Your task to perform on an android device: Open maps Image 0: 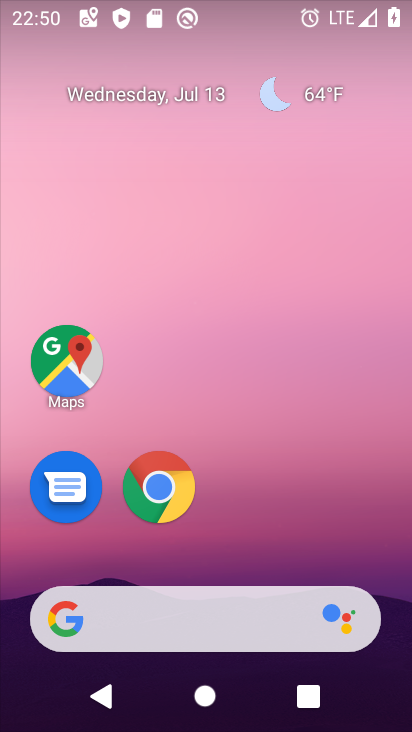
Step 0: click (68, 354)
Your task to perform on an android device: Open maps Image 1: 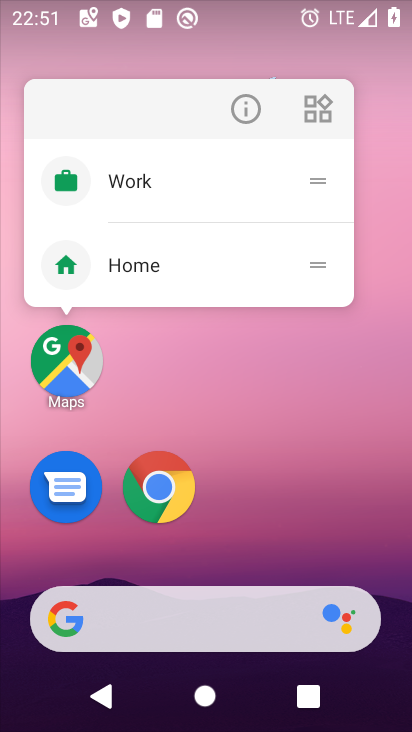
Step 1: click (81, 352)
Your task to perform on an android device: Open maps Image 2: 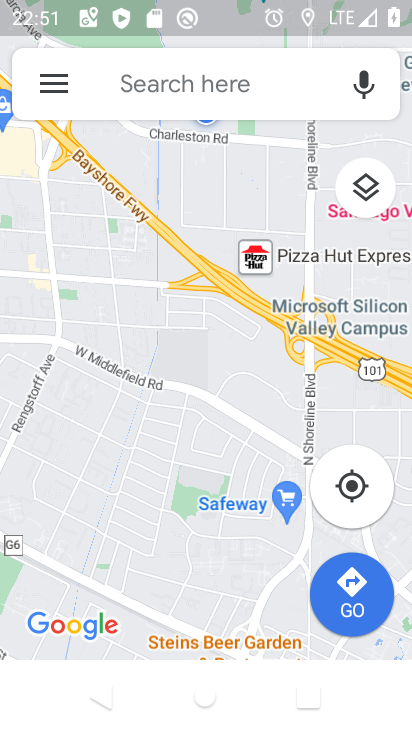
Step 2: task complete